Your task to perform on an android device: turn on translation in the chrome app Image 0: 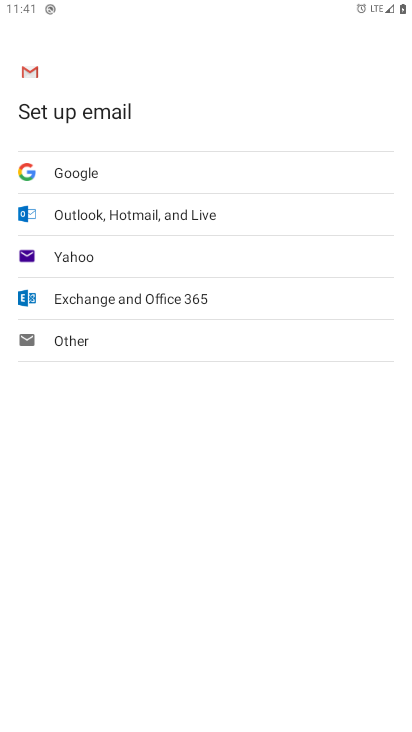
Step 0: press home button
Your task to perform on an android device: turn on translation in the chrome app Image 1: 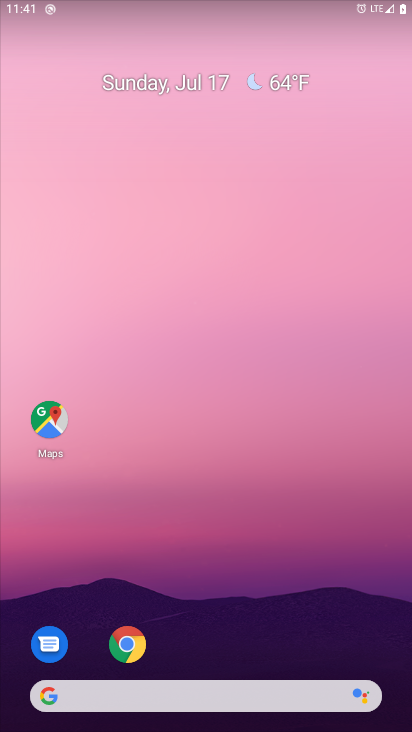
Step 1: click (129, 650)
Your task to perform on an android device: turn on translation in the chrome app Image 2: 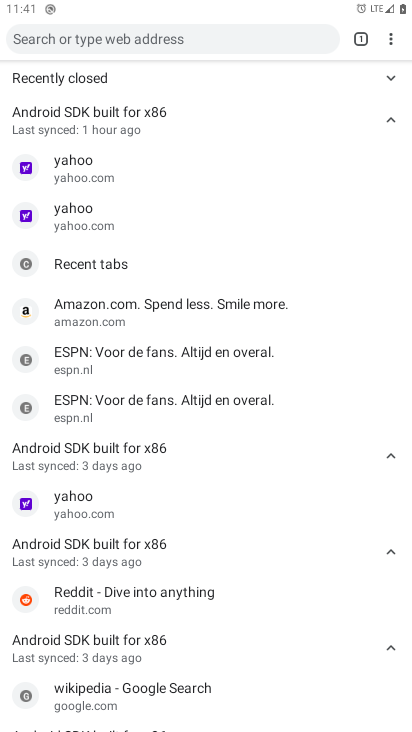
Step 2: click (386, 39)
Your task to perform on an android device: turn on translation in the chrome app Image 3: 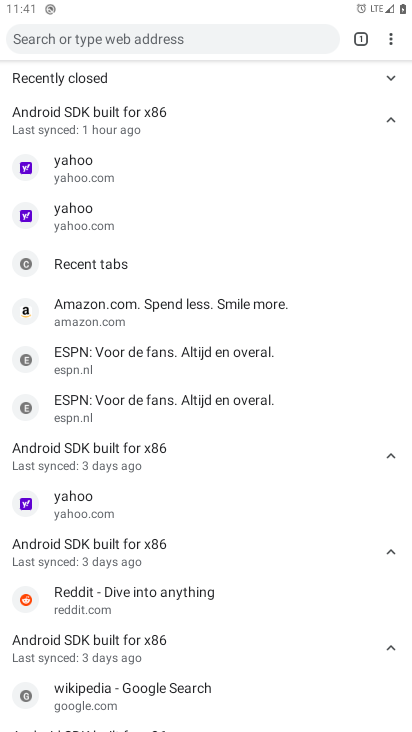
Step 3: drag from (382, 36) to (260, 324)
Your task to perform on an android device: turn on translation in the chrome app Image 4: 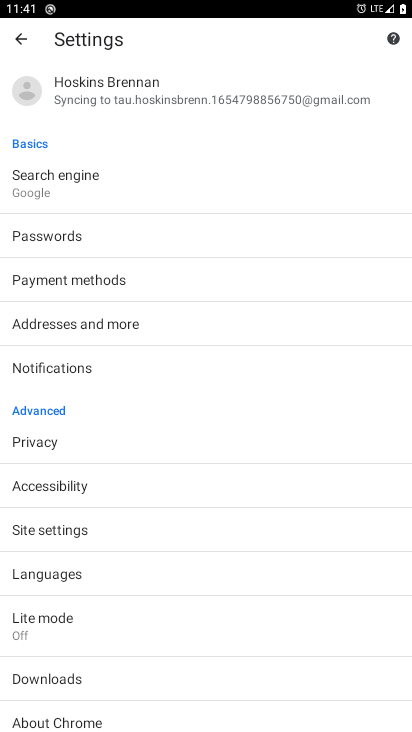
Step 4: click (81, 577)
Your task to perform on an android device: turn on translation in the chrome app Image 5: 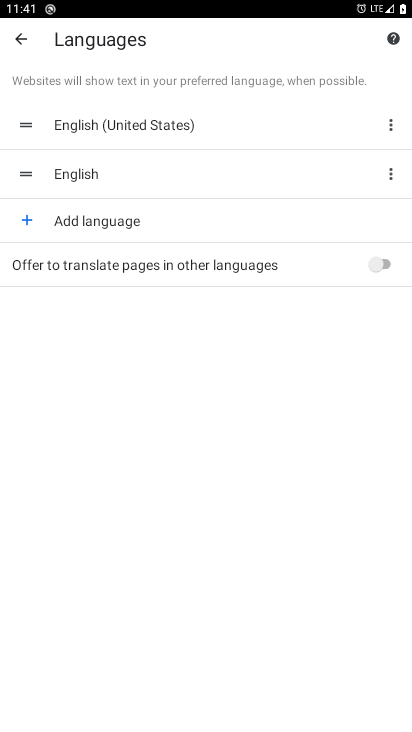
Step 5: click (385, 265)
Your task to perform on an android device: turn on translation in the chrome app Image 6: 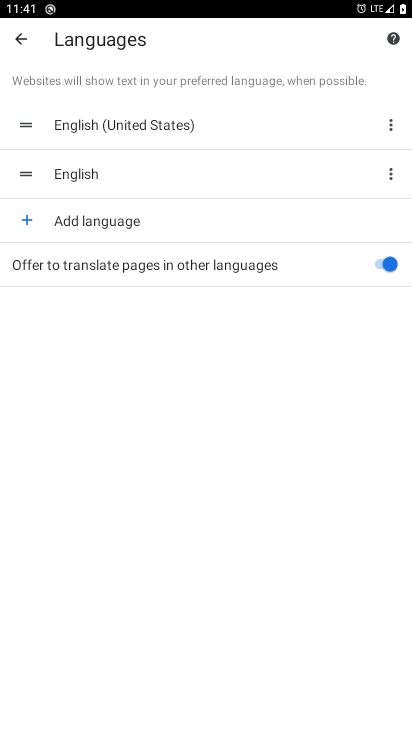
Step 6: task complete